Your task to perform on an android device: Go to Android settings Image 0: 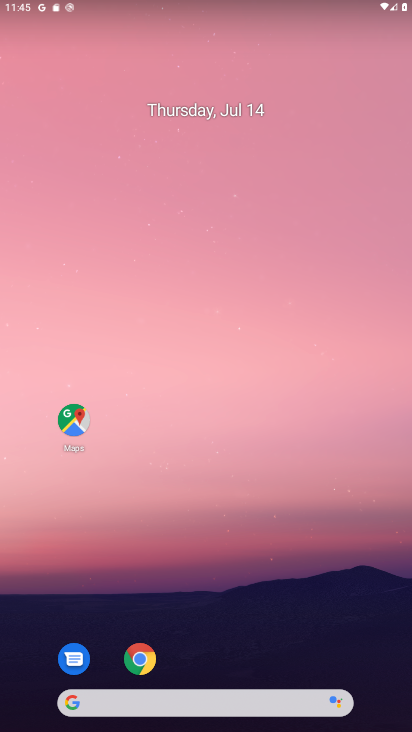
Step 0: drag from (290, 643) to (259, 252)
Your task to perform on an android device: Go to Android settings Image 1: 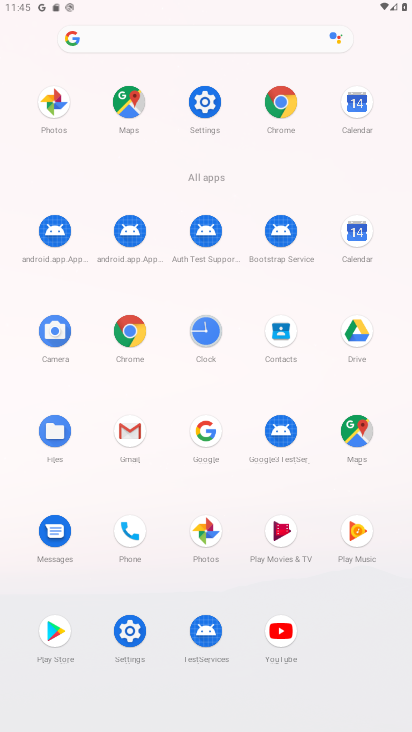
Step 1: click (204, 111)
Your task to perform on an android device: Go to Android settings Image 2: 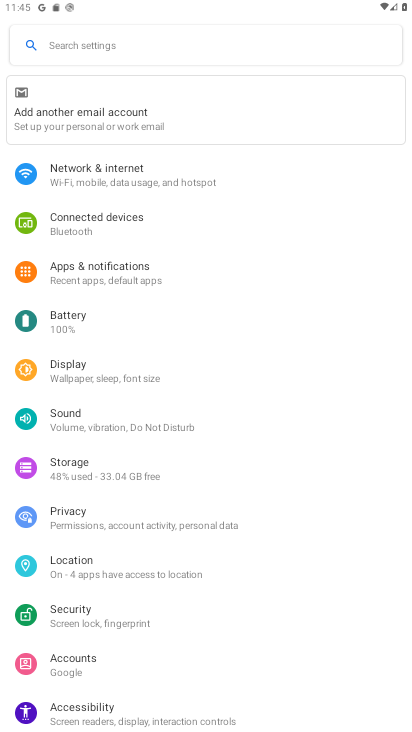
Step 2: task complete